Your task to perform on an android device: Open Yahoo.com Image 0: 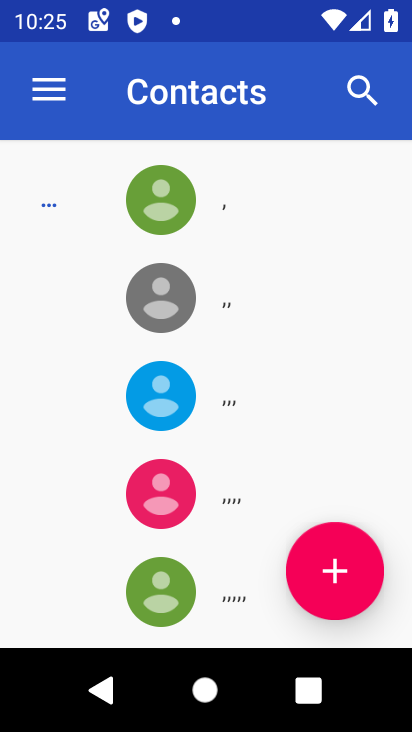
Step 0: press home button
Your task to perform on an android device: Open Yahoo.com Image 1: 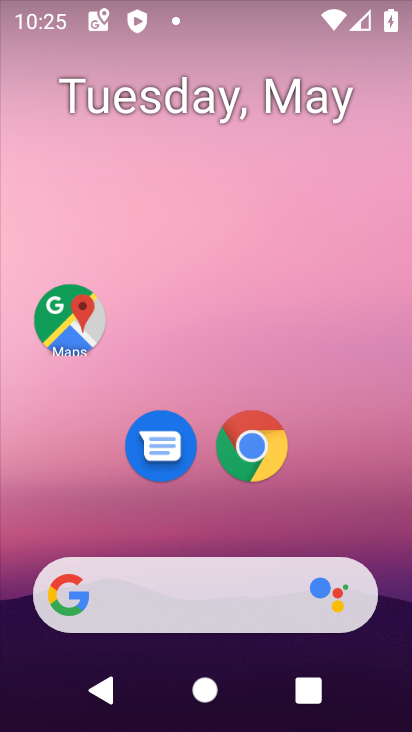
Step 1: click (260, 441)
Your task to perform on an android device: Open Yahoo.com Image 2: 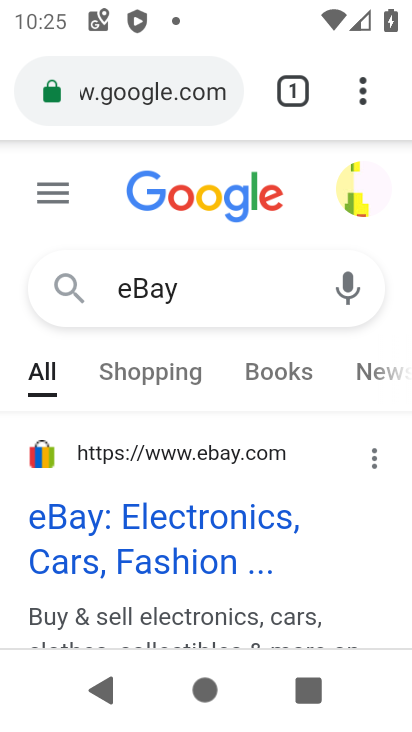
Step 2: click (165, 70)
Your task to perform on an android device: Open Yahoo.com Image 3: 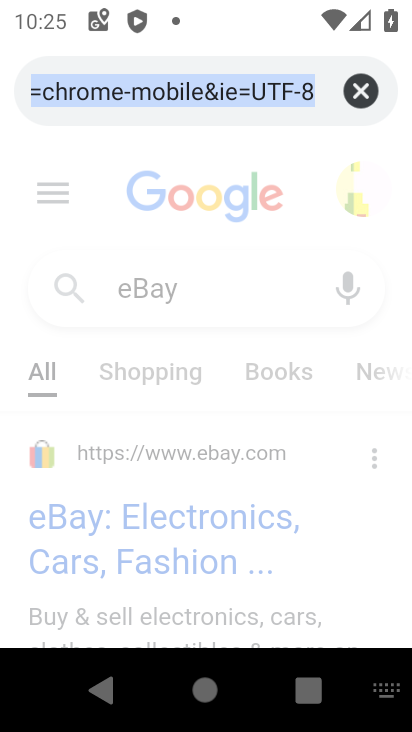
Step 3: type "Yahoo.com"
Your task to perform on an android device: Open Yahoo.com Image 4: 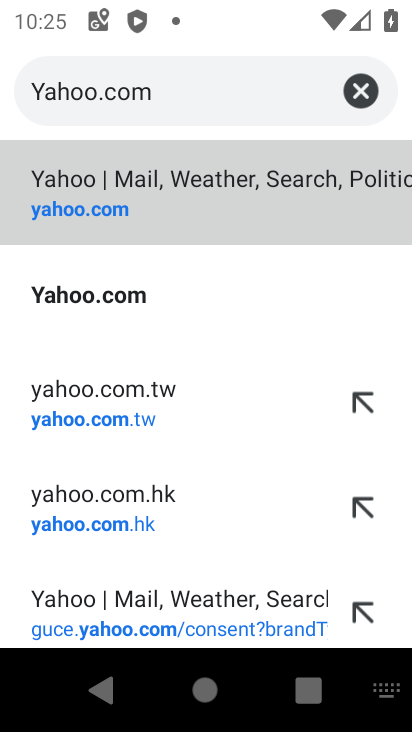
Step 4: click (173, 209)
Your task to perform on an android device: Open Yahoo.com Image 5: 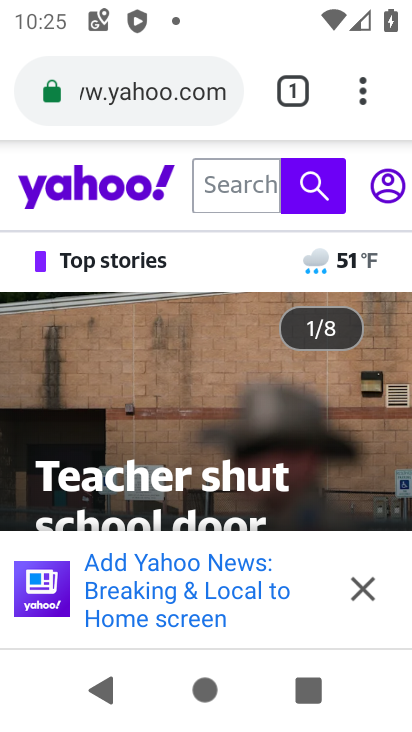
Step 5: task complete